Your task to perform on an android device: Find the nearest electronics store that's open now Image 0: 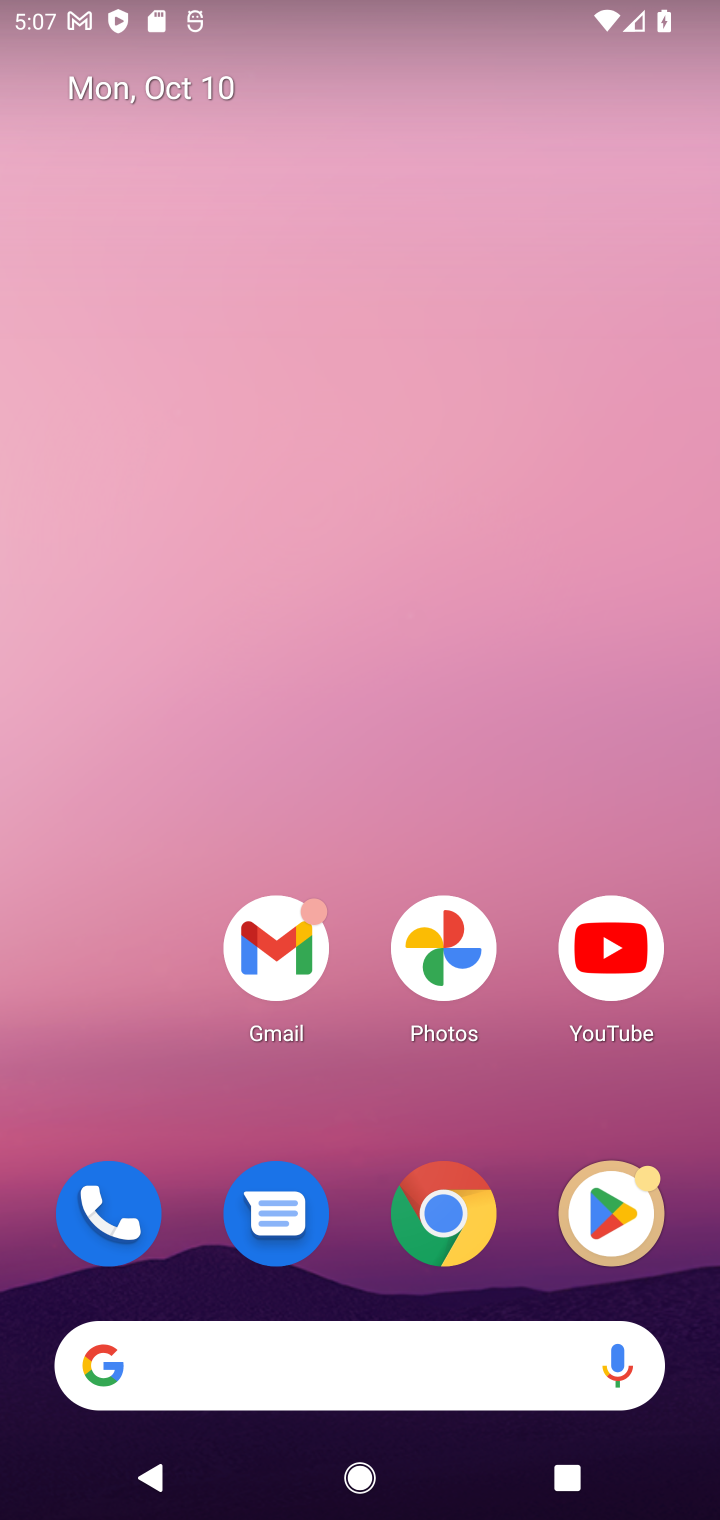
Step 0: click (369, 1371)
Your task to perform on an android device: Find the nearest electronics store that's open now Image 1: 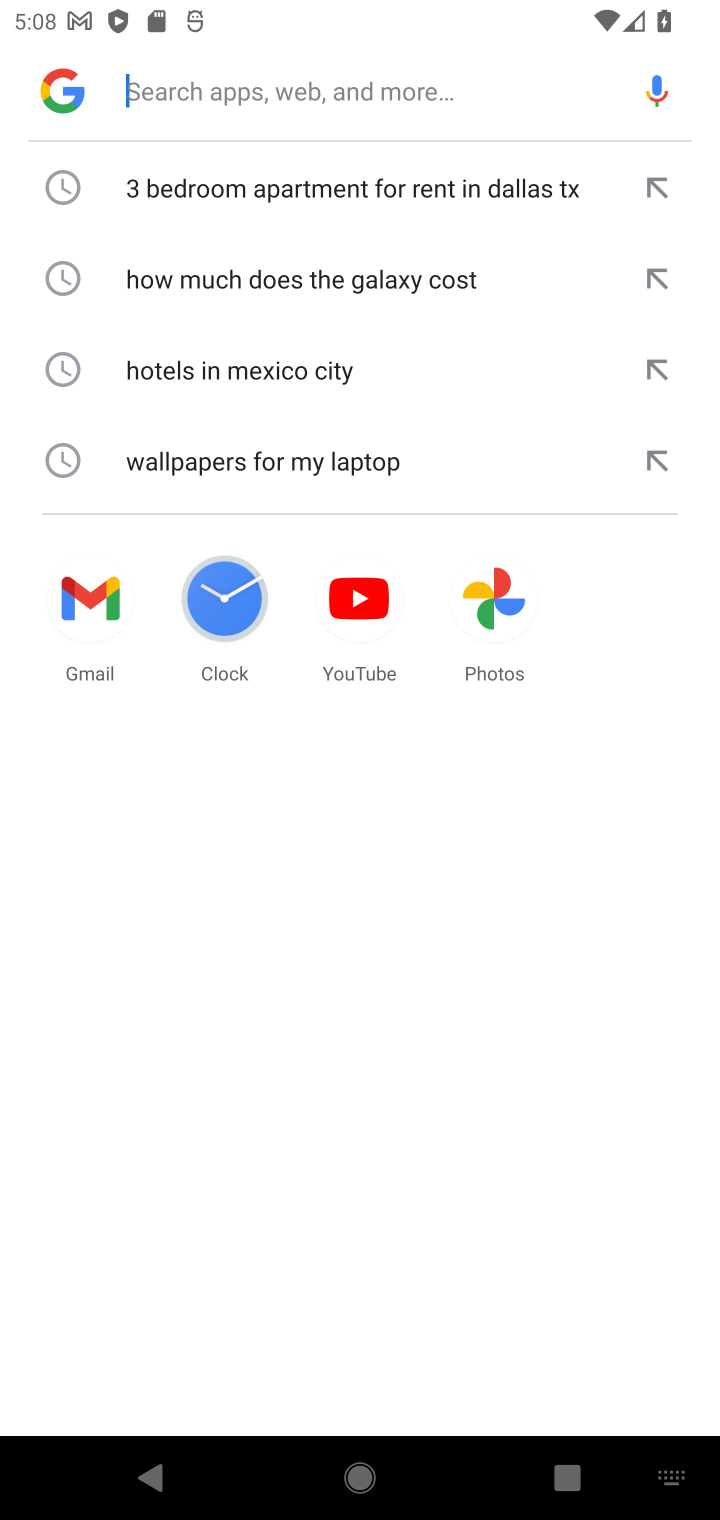
Step 1: type "Find the nearest electronics store that's open now"
Your task to perform on an android device: Find the nearest electronics store that's open now Image 2: 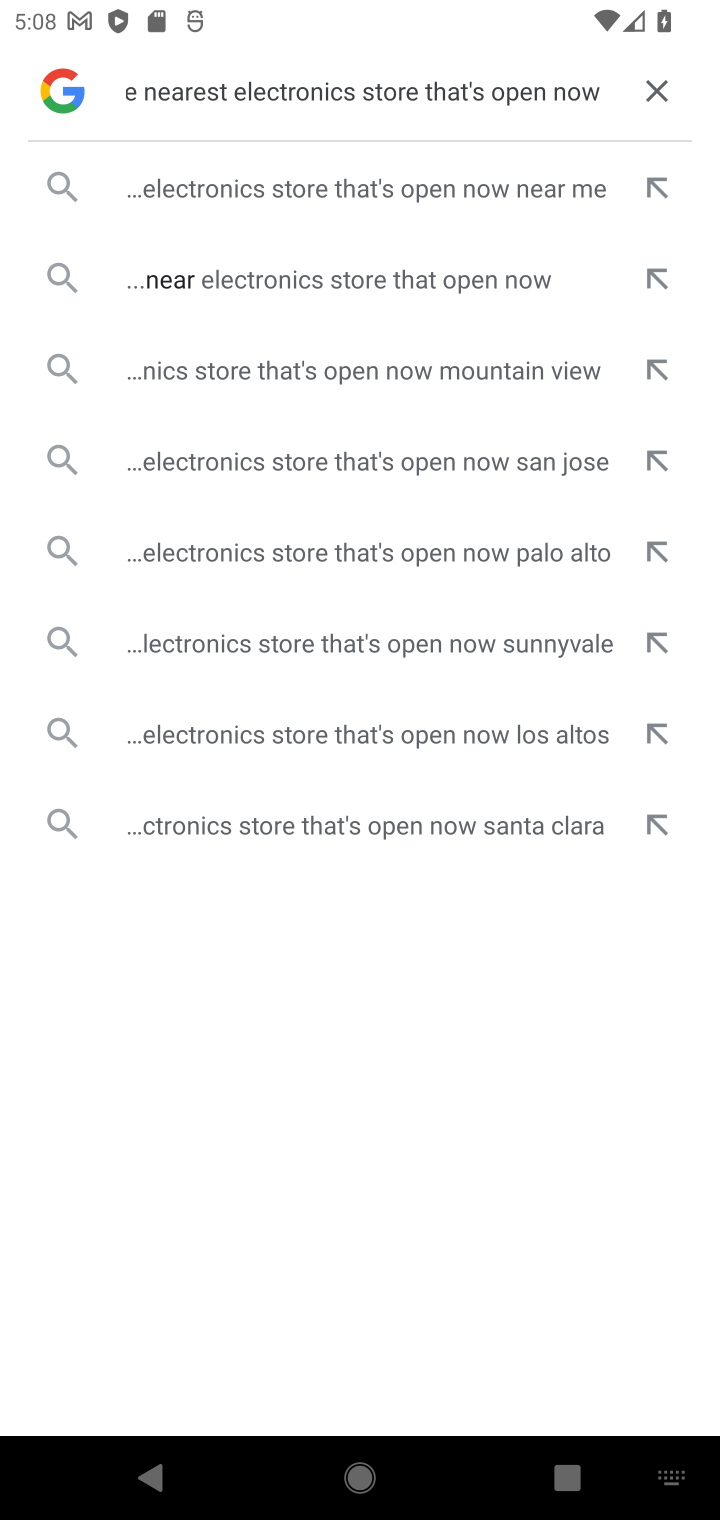
Step 2: click (341, 285)
Your task to perform on an android device: Find the nearest electronics store that's open now Image 3: 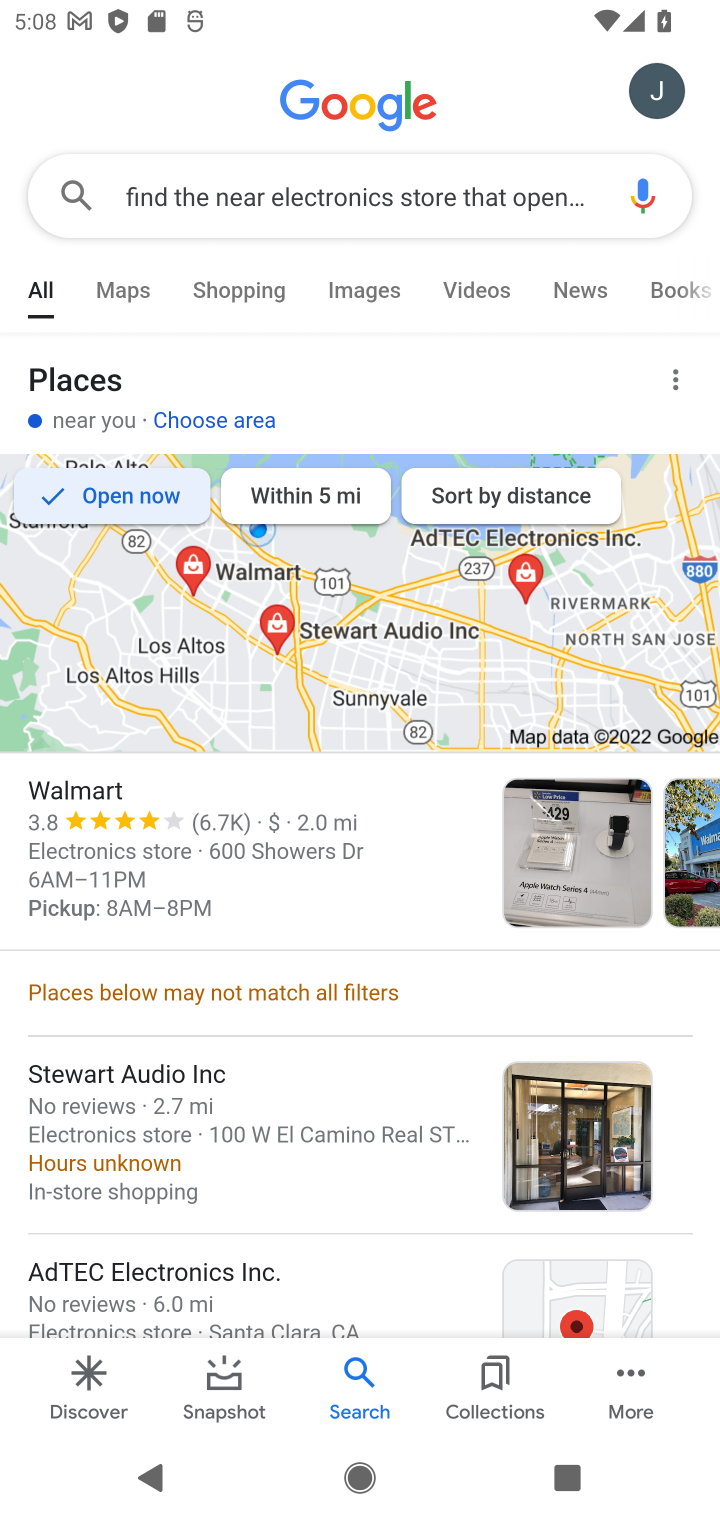
Step 3: task complete